Your task to perform on an android device: check data usage Image 0: 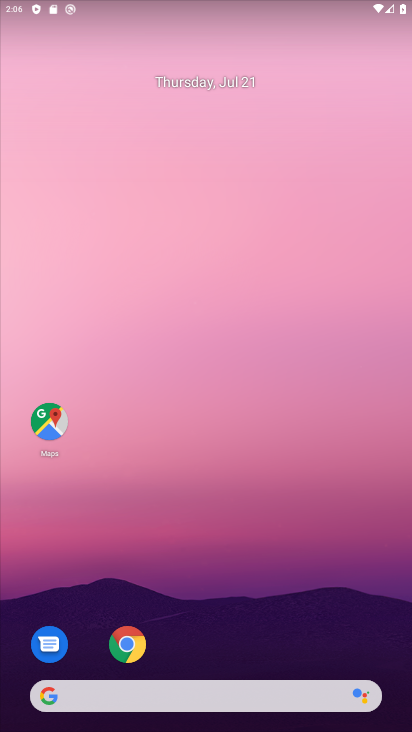
Step 0: drag from (263, 665) to (181, 183)
Your task to perform on an android device: check data usage Image 1: 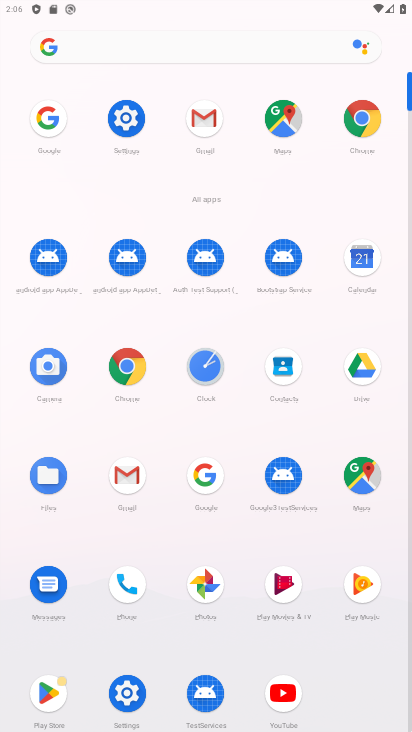
Step 1: click (128, 117)
Your task to perform on an android device: check data usage Image 2: 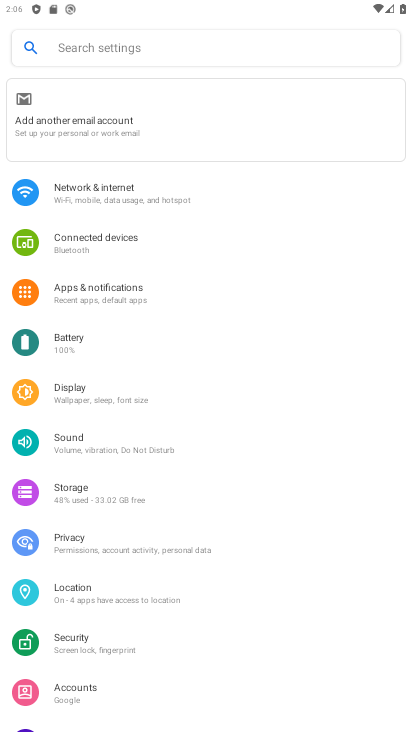
Step 2: click (128, 201)
Your task to perform on an android device: check data usage Image 3: 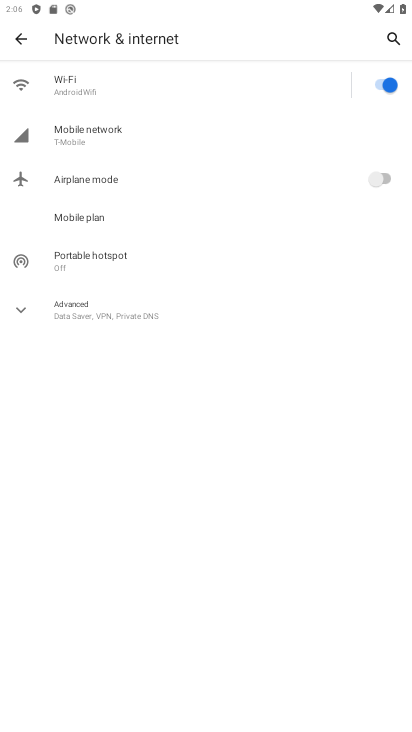
Step 3: click (91, 91)
Your task to perform on an android device: check data usage Image 4: 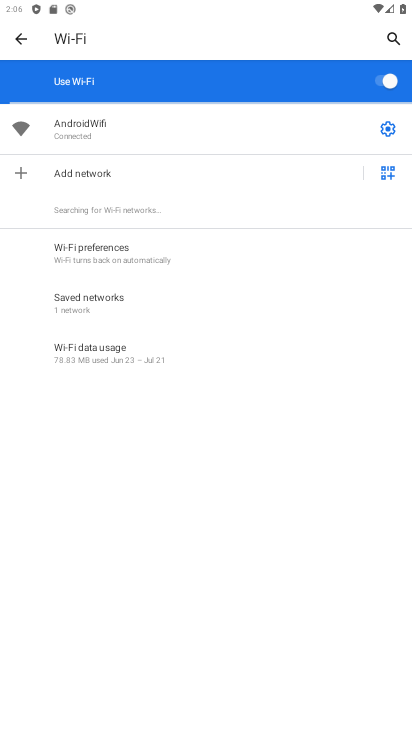
Step 4: click (152, 359)
Your task to perform on an android device: check data usage Image 5: 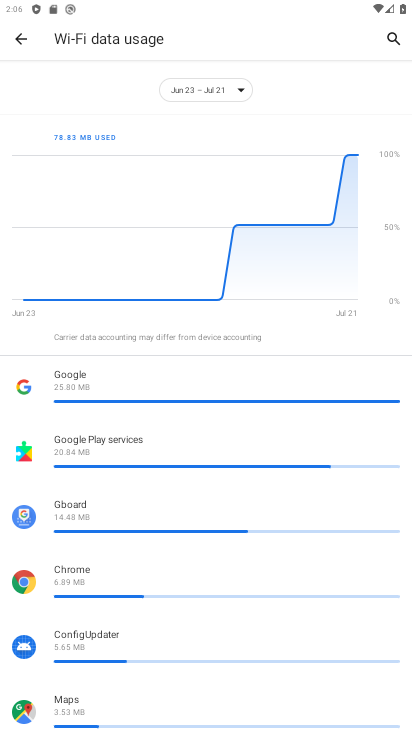
Step 5: task complete